Your task to perform on an android device: open the mobile data screen to see how much data has been used Image 0: 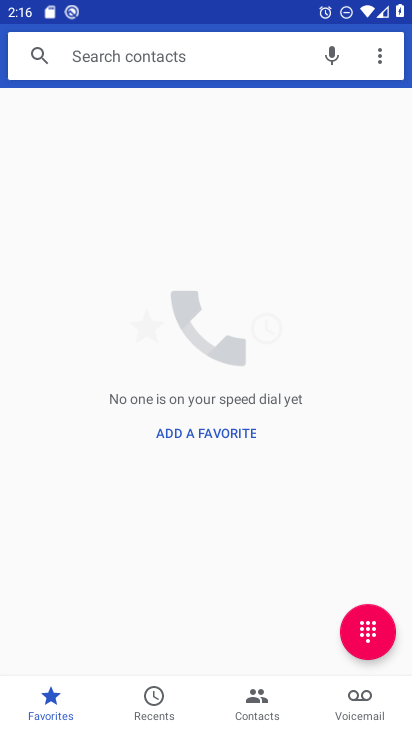
Step 0: press home button
Your task to perform on an android device: open the mobile data screen to see how much data has been used Image 1: 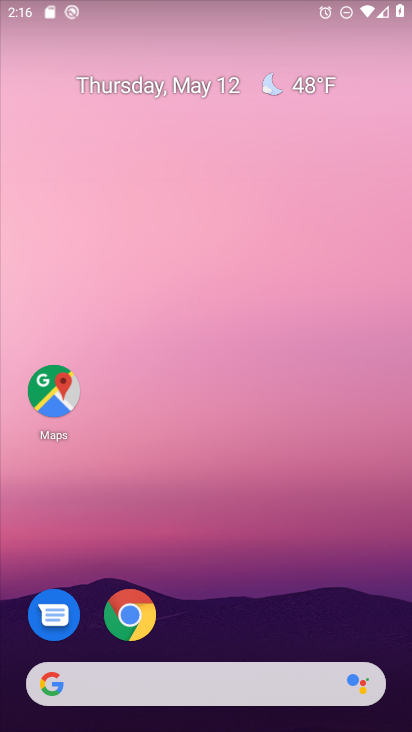
Step 1: drag from (290, 666) to (228, 47)
Your task to perform on an android device: open the mobile data screen to see how much data has been used Image 2: 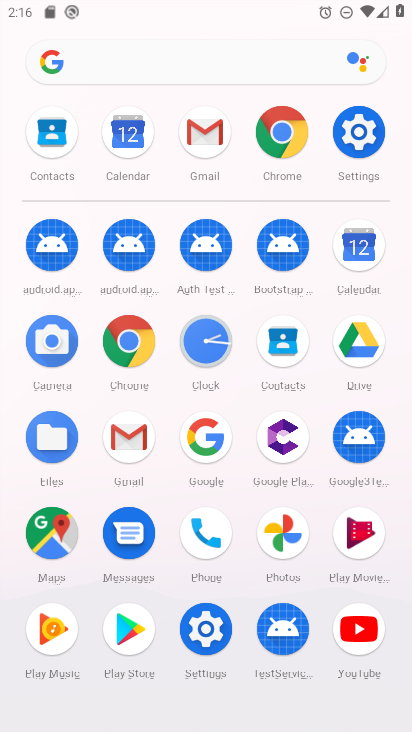
Step 2: click (348, 124)
Your task to perform on an android device: open the mobile data screen to see how much data has been used Image 3: 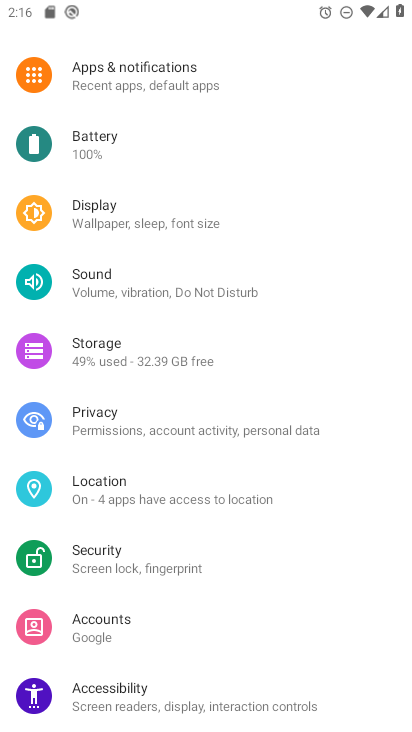
Step 3: drag from (324, 191) to (322, 640)
Your task to perform on an android device: open the mobile data screen to see how much data has been used Image 4: 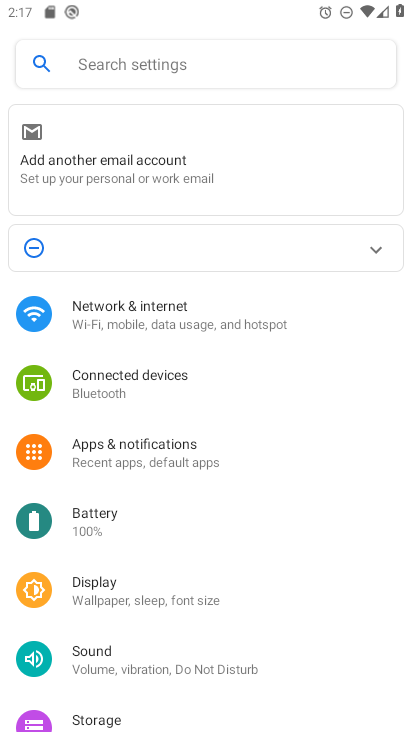
Step 4: click (173, 329)
Your task to perform on an android device: open the mobile data screen to see how much data has been used Image 5: 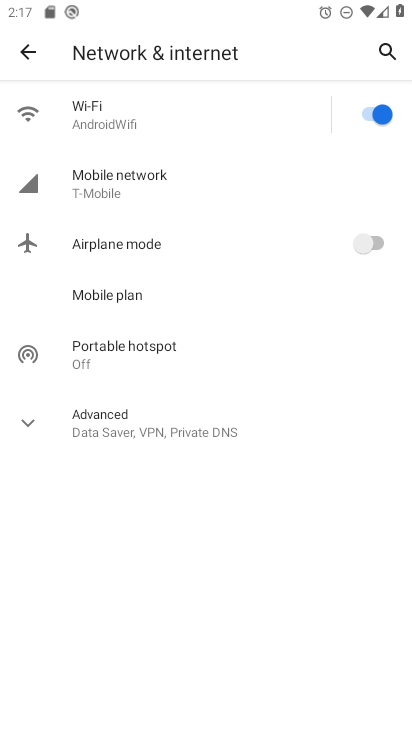
Step 5: click (192, 188)
Your task to perform on an android device: open the mobile data screen to see how much data has been used Image 6: 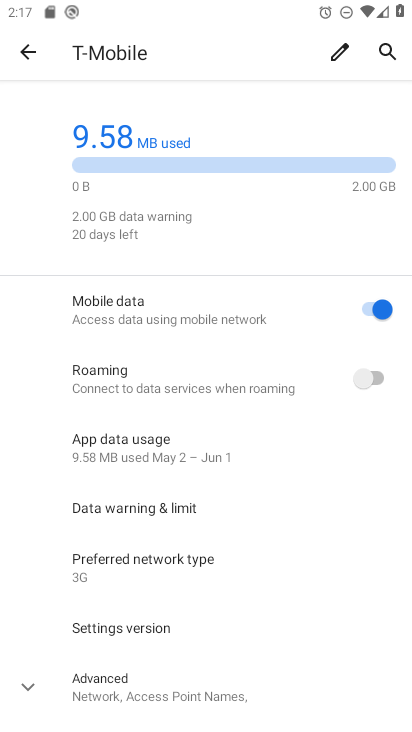
Step 6: click (150, 464)
Your task to perform on an android device: open the mobile data screen to see how much data has been used Image 7: 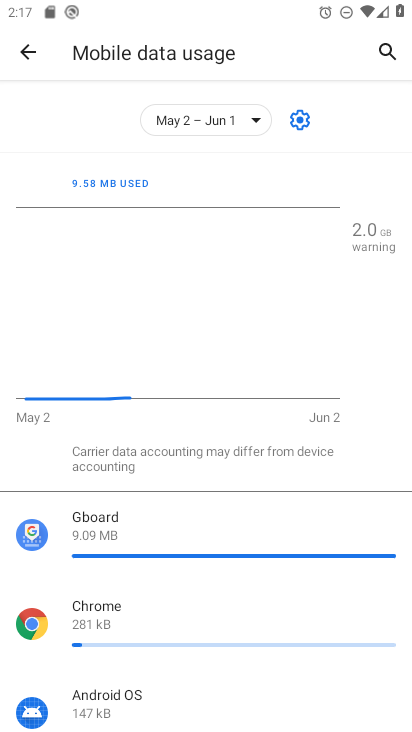
Step 7: task complete